Your task to perform on an android device: open chrome and create a bookmark for the current page Image 0: 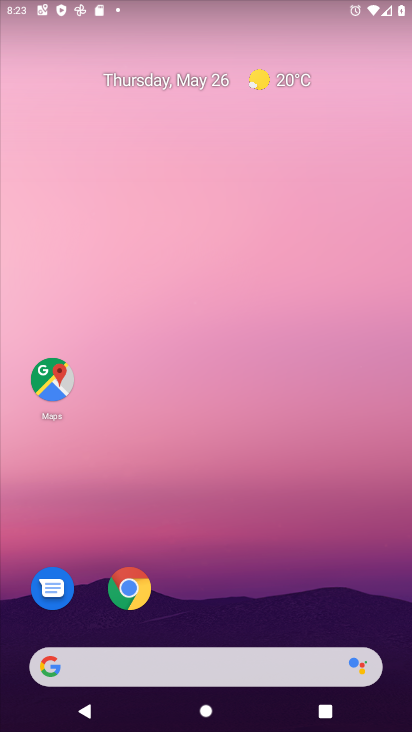
Step 0: drag from (387, 649) to (309, 44)
Your task to perform on an android device: open chrome and create a bookmark for the current page Image 1: 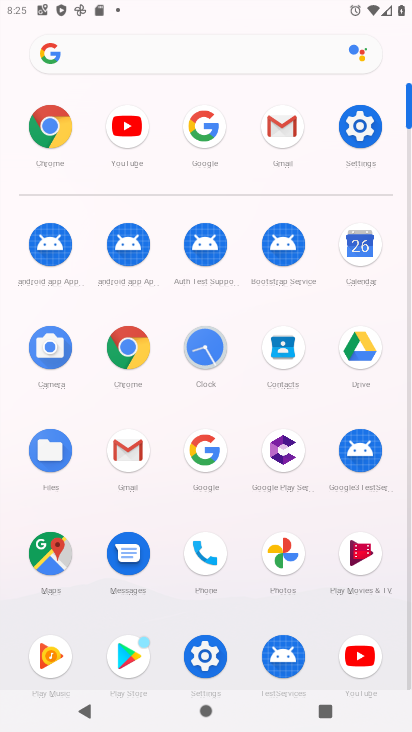
Step 1: click (129, 361)
Your task to perform on an android device: open chrome and create a bookmark for the current page Image 2: 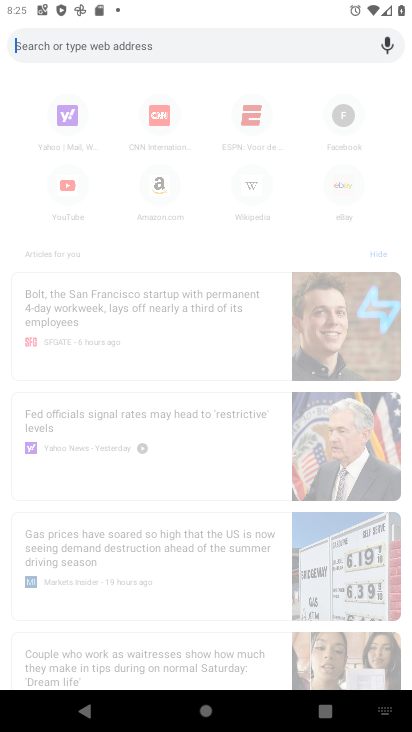
Step 2: press back button
Your task to perform on an android device: open chrome and create a bookmark for the current page Image 3: 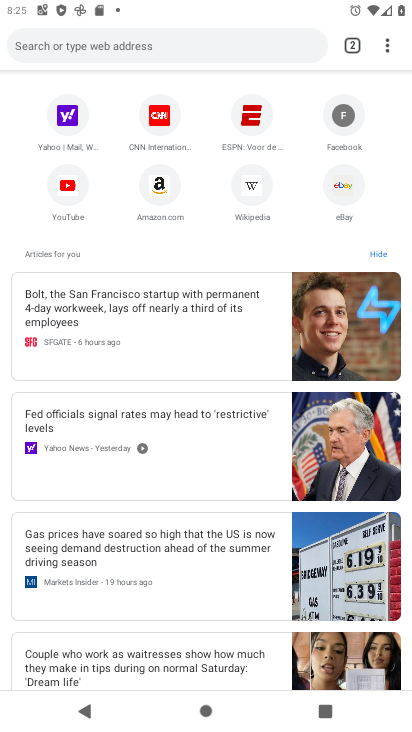
Step 3: click (383, 42)
Your task to perform on an android device: open chrome and create a bookmark for the current page Image 4: 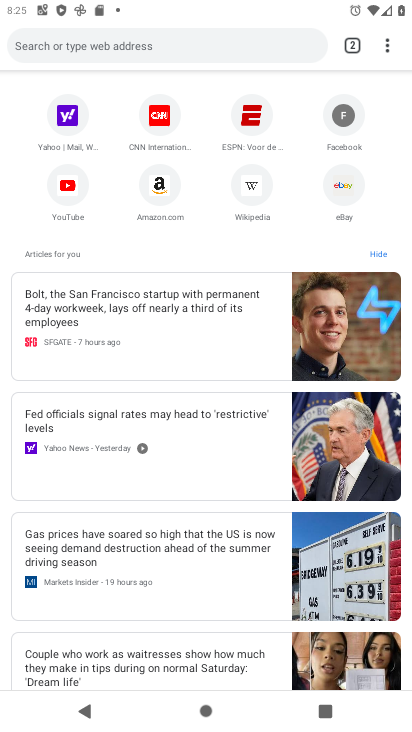
Step 4: click (385, 44)
Your task to perform on an android device: open chrome and create a bookmark for the current page Image 5: 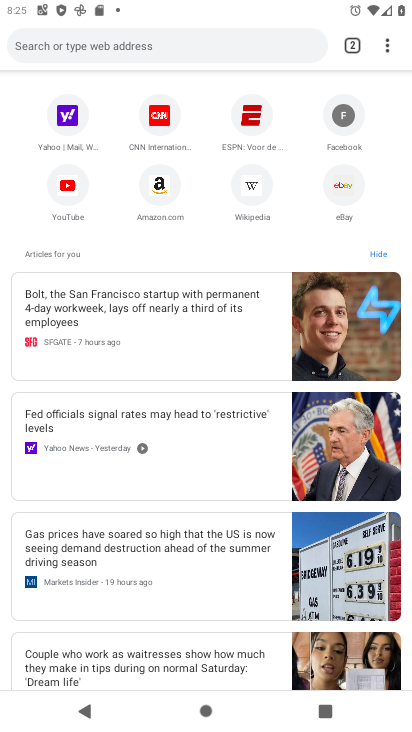
Step 5: click (385, 44)
Your task to perform on an android device: open chrome and create a bookmark for the current page Image 6: 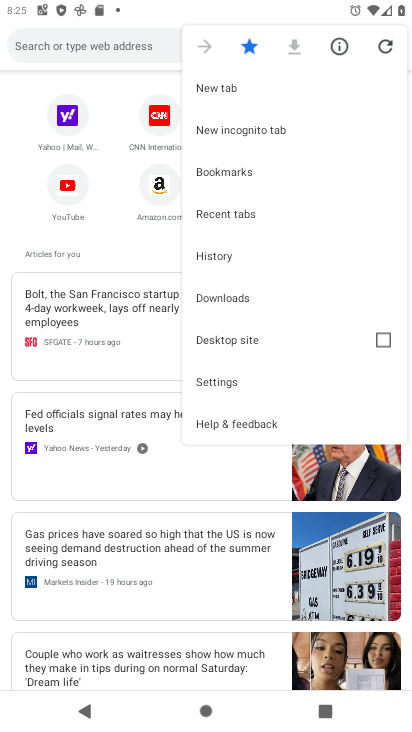
Step 6: task complete